Your task to perform on an android device: turn off picture-in-picture Image 0: 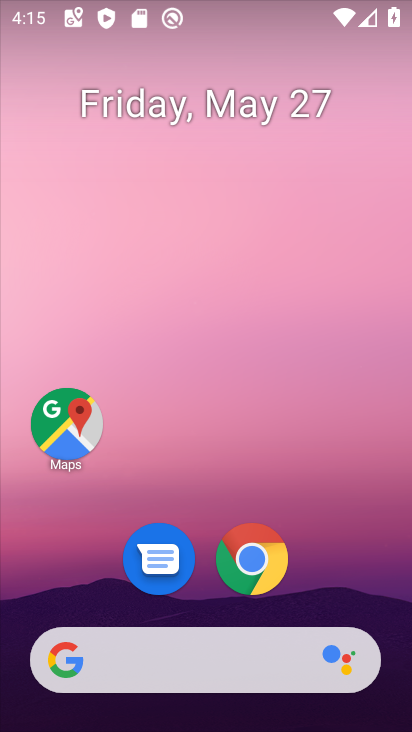
Step 0: click (251, 564)
Your task to perform on an android device: turn off picture-in-picture Image 1: 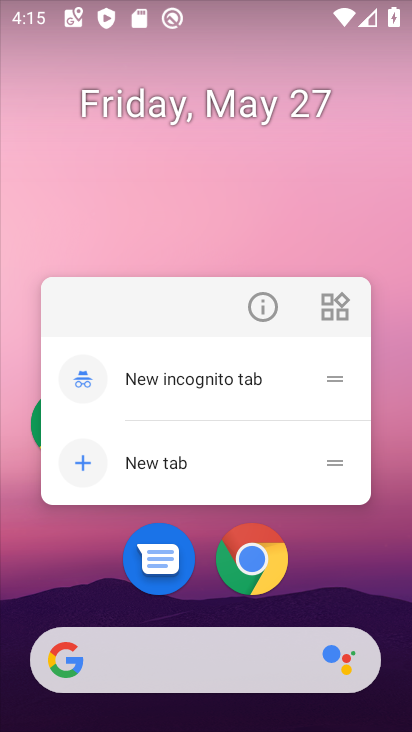
Step 1: click (259, 307)
Your task to perform on an android device: turn off picture-in-picture Image 2: 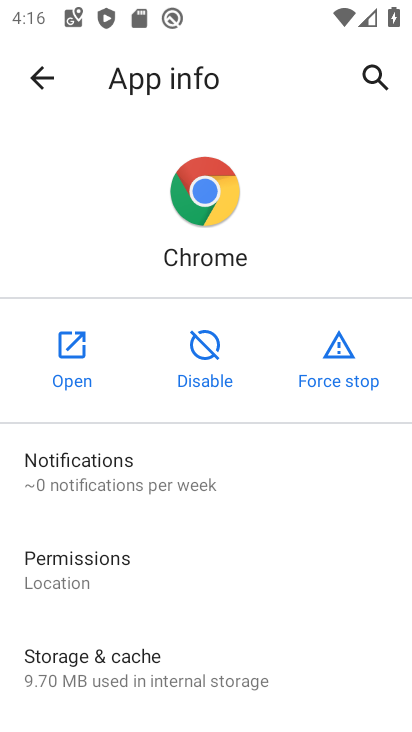
Step 2: drag from (250, 642) to (253, 164)
Your task to perform on an android device: turn off picture-in-picture Image 3: 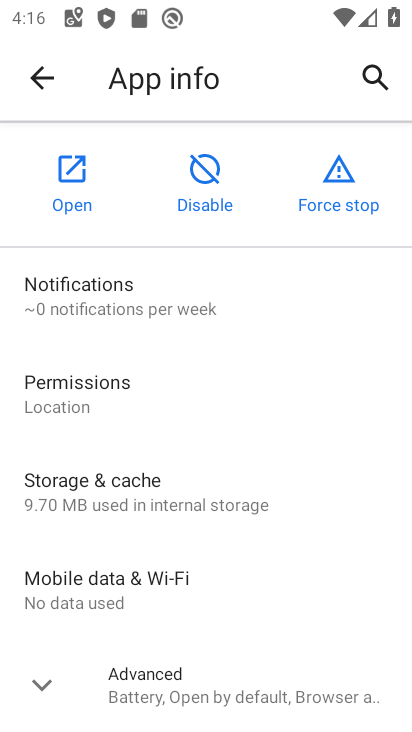
Step 3: click (31, 686)
Your task to perform on an android device: turn off picture-in-picture Image 4: 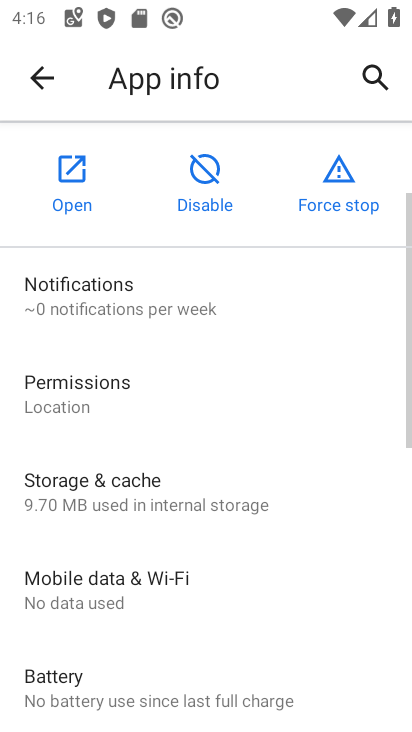
Step 4: drag from (213, 660) to (221, 346)
Your task to perform on an android device: turn off picture-in-picture Image 5: 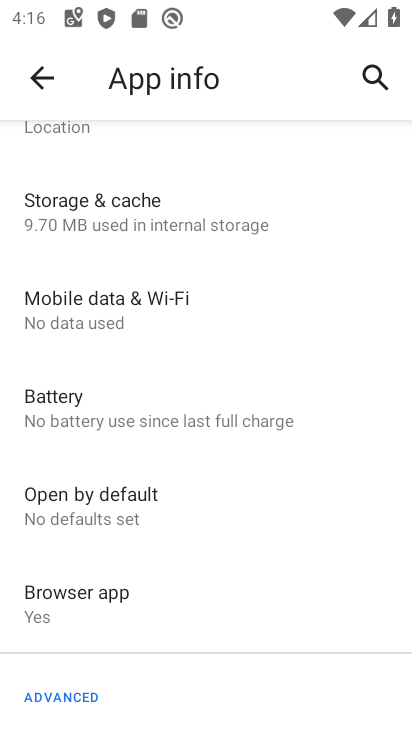
Step 5: drag from (312, 694) to (286, 307)
Your task to perform on an android device: turn off picture-in-picture Image 6: 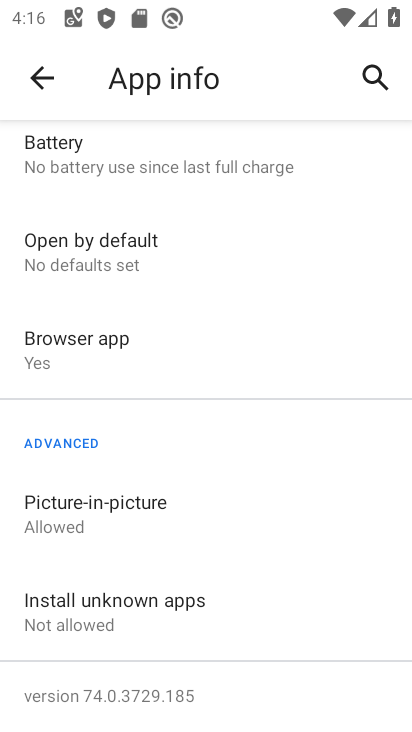
Step 6: click (75, 520)
Your task to perform on an android device: turn off picture-in-picture Image 7: 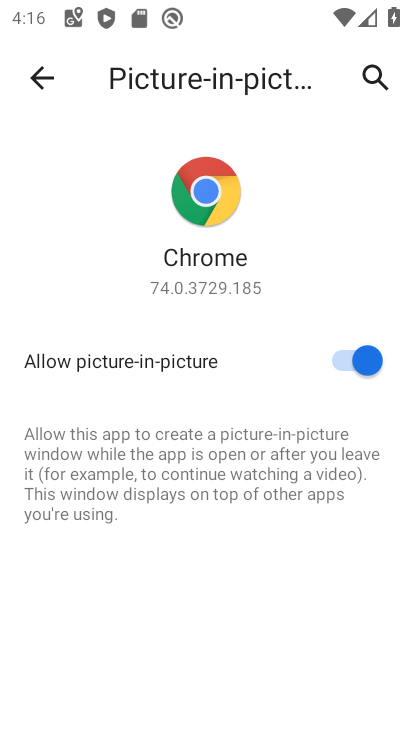
Step 7: click (339, 367)
Your task to perform on an android device: turn off picture-in-picture Image 8: 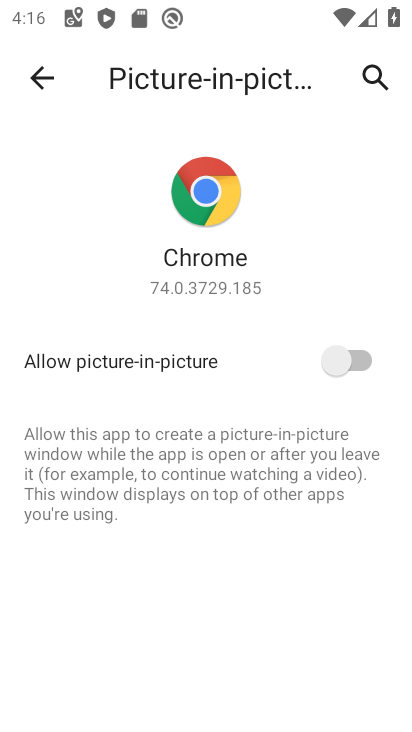
Step 8: task complete